Your task to perform on an android device: move a message to another label in the gmail app Image 0: 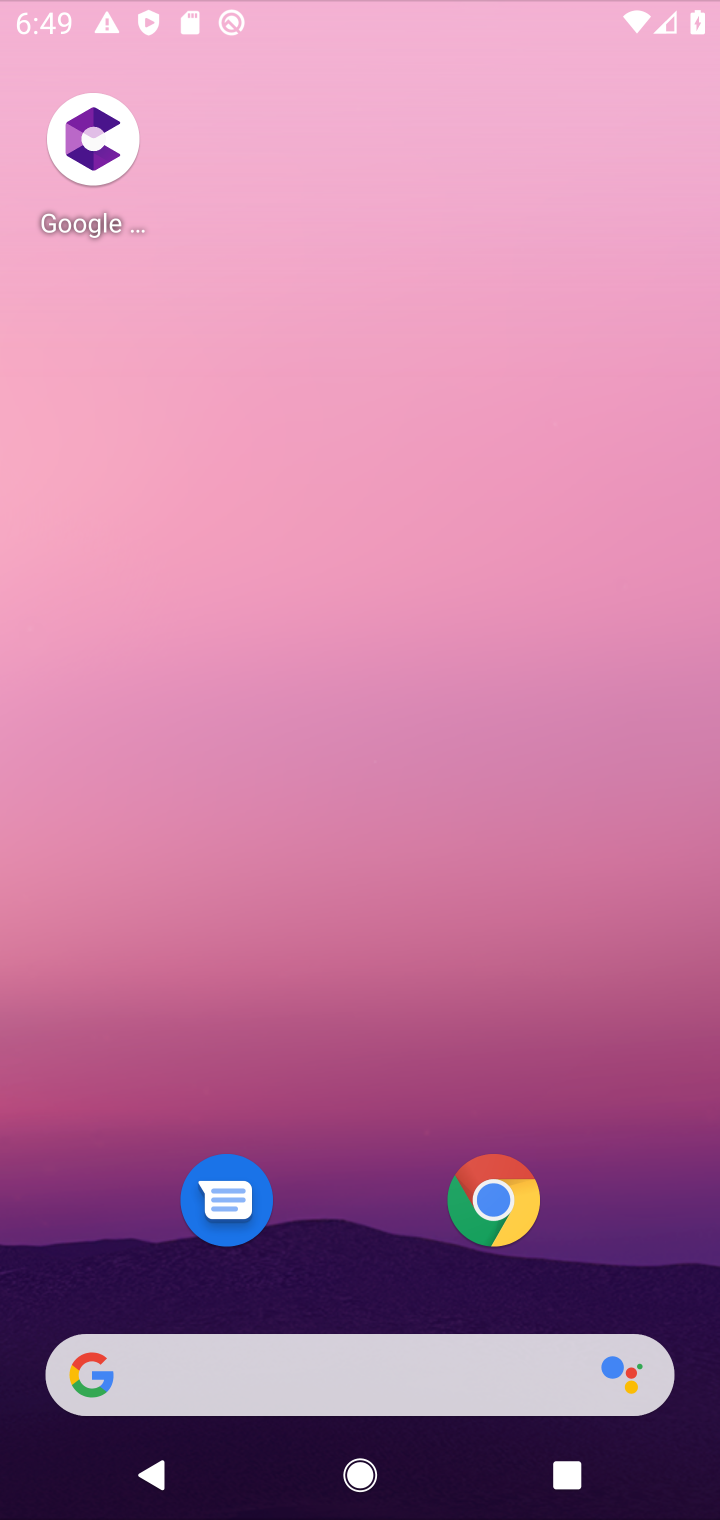
Step 0: press home button
Your task to perform on an android device: move a message to another label in the gmail app Image 1: 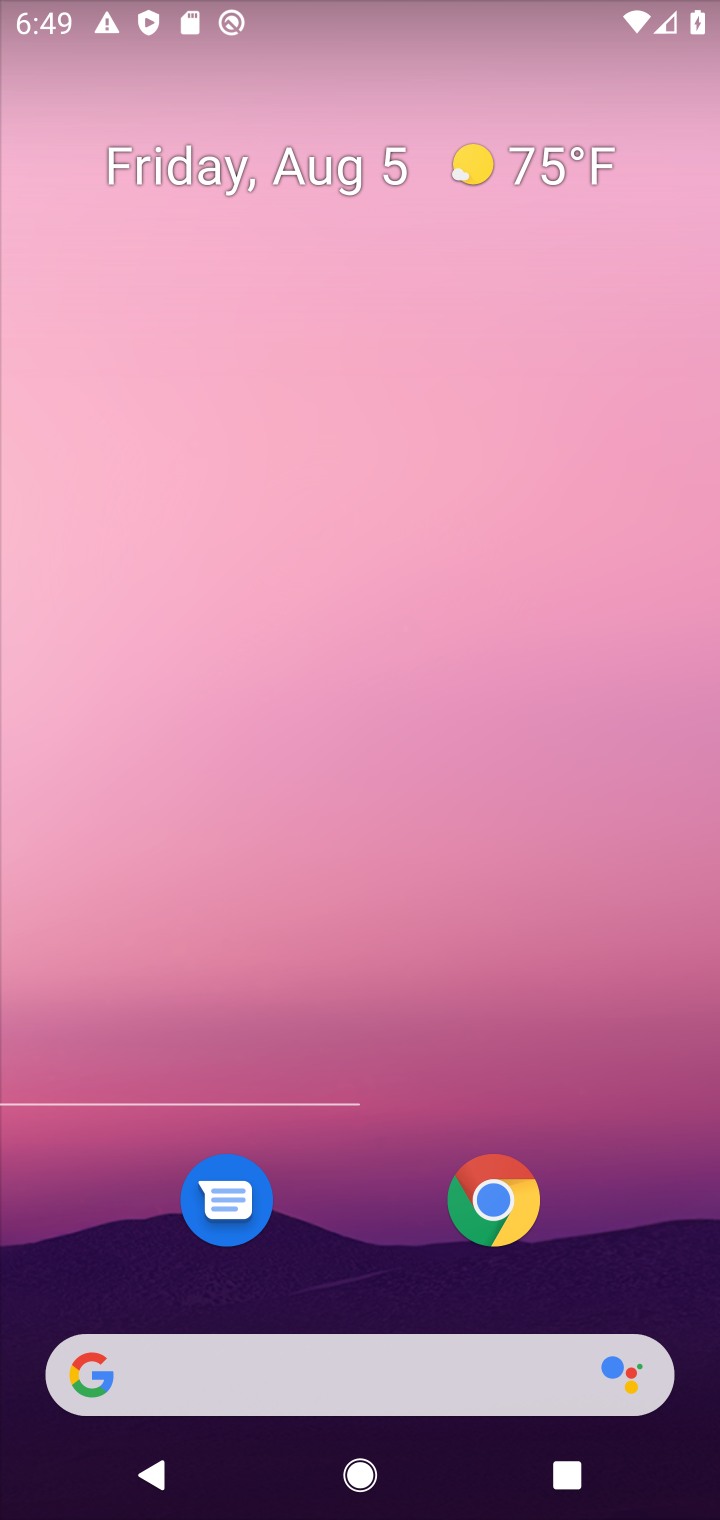
Step 1: drag from (418, 1124) to (358, 20)
Your task to perform on an android device: move a message to another label in the gmail app Image 2: 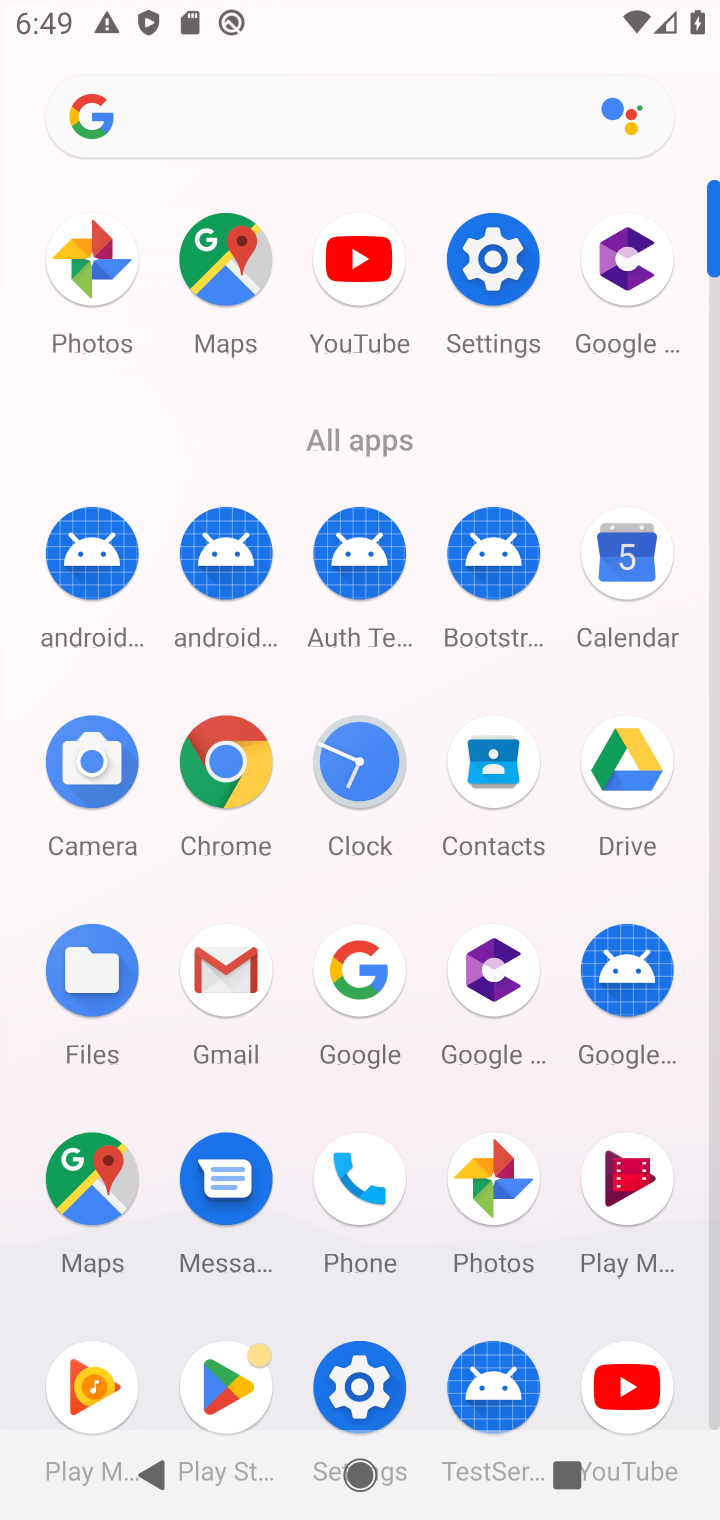
Step 2: click (247, 937)
Your task to perform on an android device: move a message to another label in the gmail app Image 3: 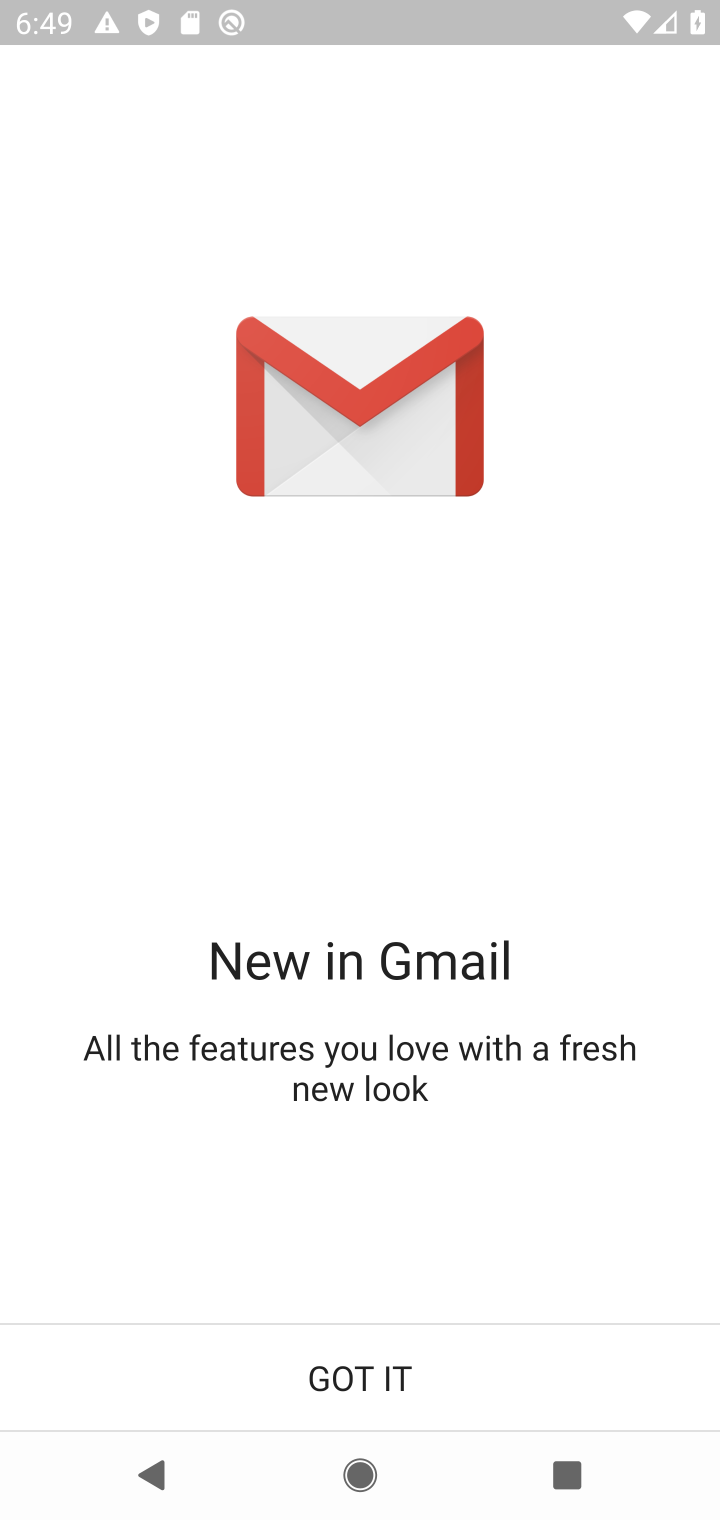
Step 3: click (497, 1341)
Your task to perform on an android device: move a message to another label in the gmail app Image 4: 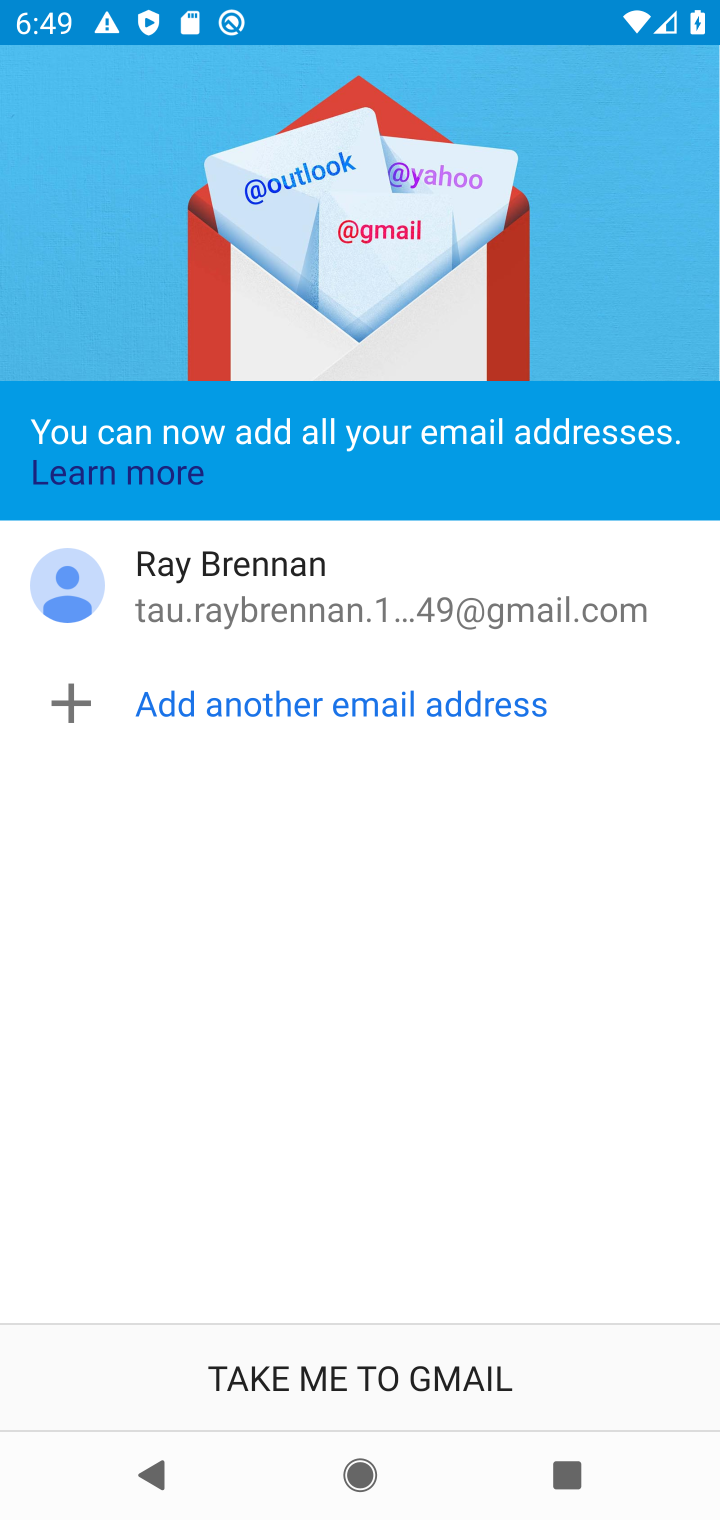
Step 4: click (497, 1341)
Your task to perform on an android device: move a message to another label in the gmail app Image 5: 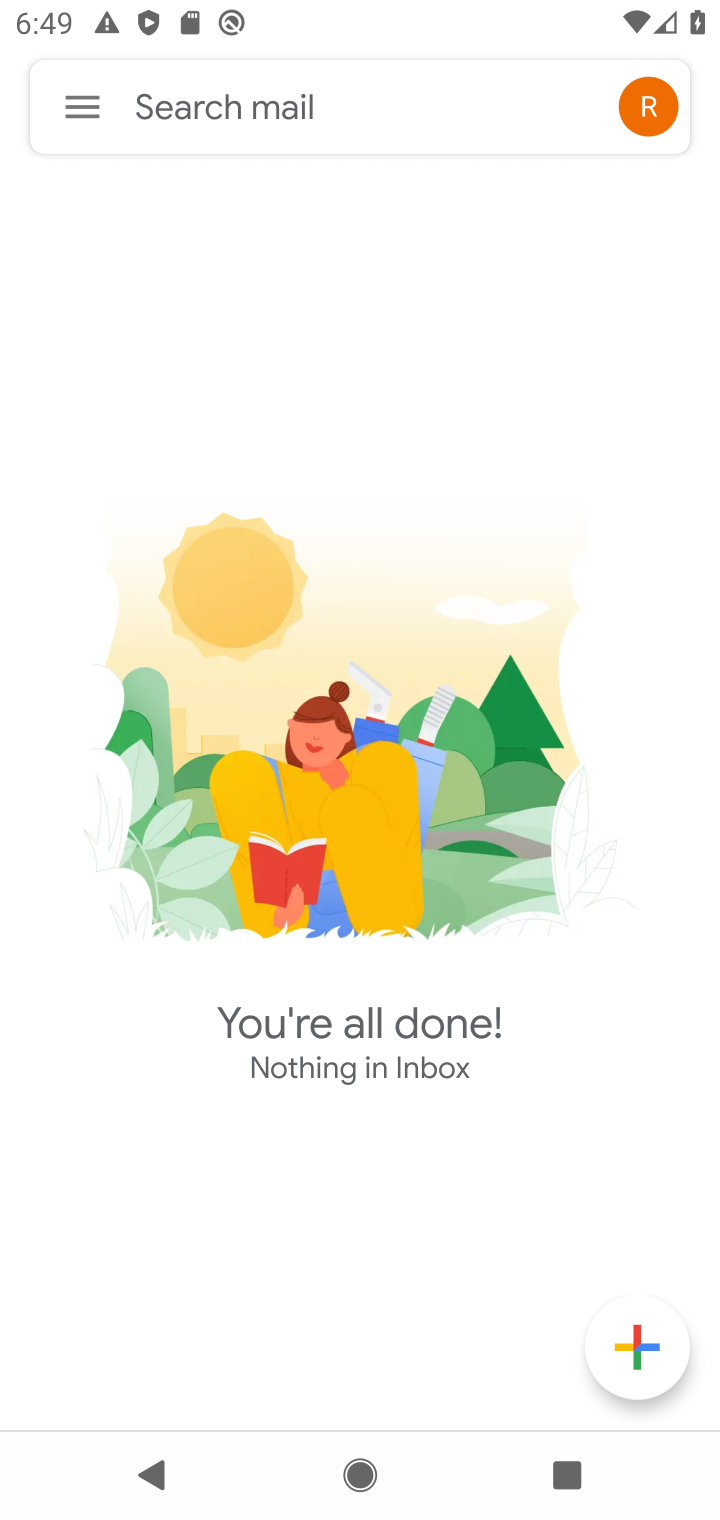
Step 5: click (80, 106)
Your task to perform on an android device: move a message to another label in the gmail app Image 6: 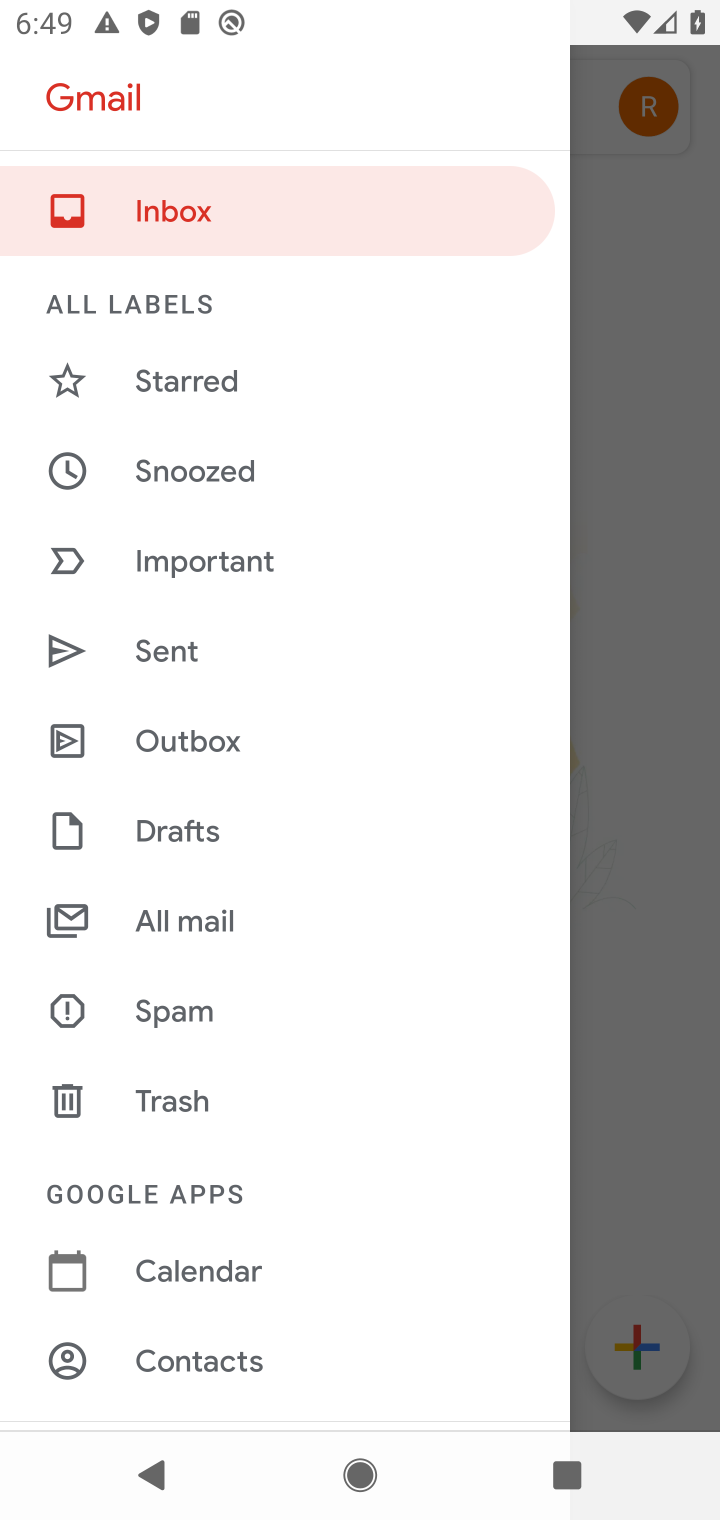
Step 6: click (197, 932)
Your task to perform on an android device: move a message to another label in the gmail app Image 7: 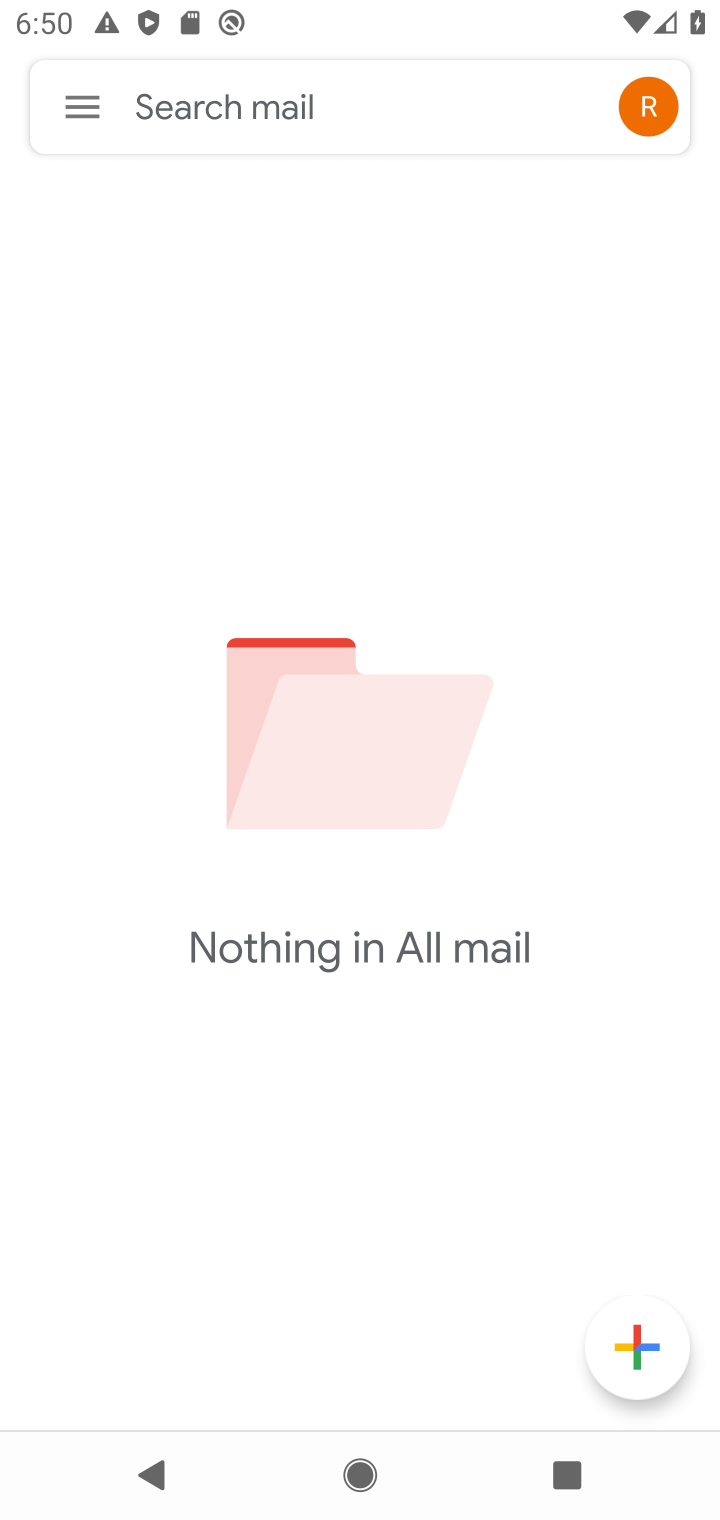
Step 7: task complete